Your task to perform on an android device: Show me popular videos on Youtube Image 0: 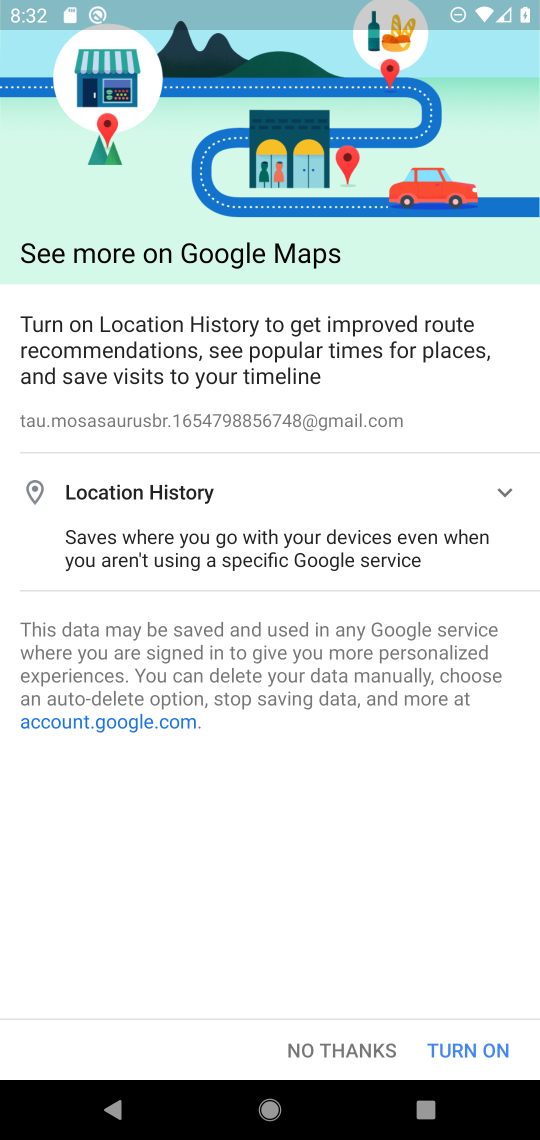
Step 0: press home button
Your task to perform on an android device: Show me popular videos on Youtube Image 1: 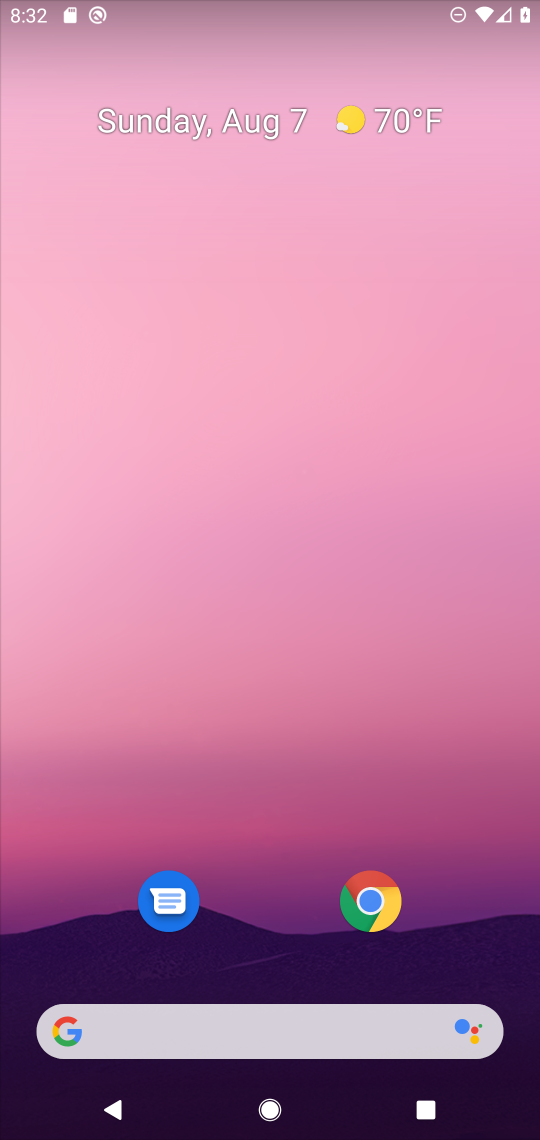
Step 1: drag from (313, 886) to (188, 104)
Your task to perform on an android device: Show me popular videos on Youtube Image 2: 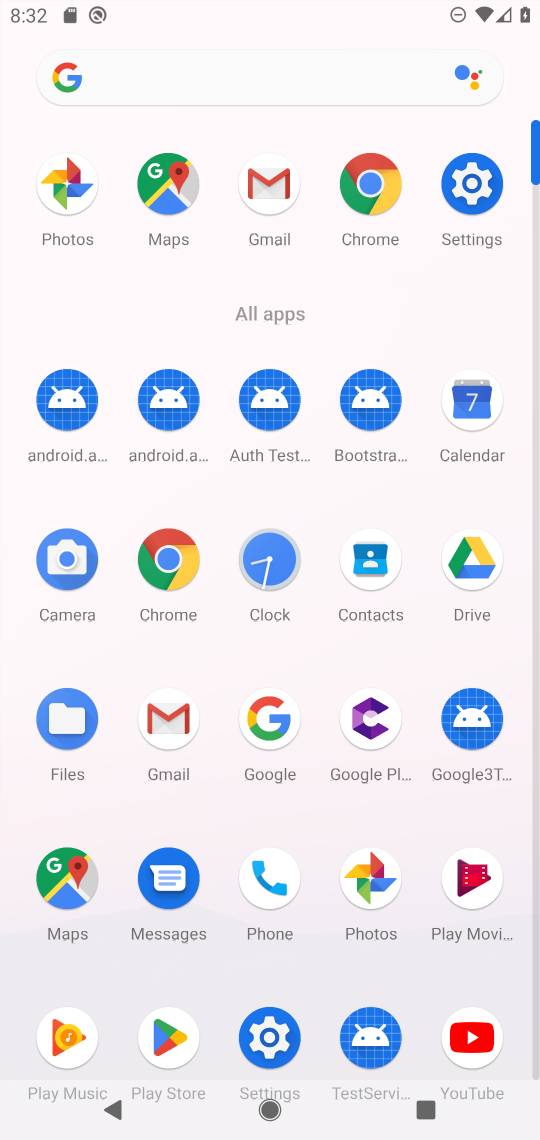
Step 2: click (463, 1034)
Your task to perform on an android device: Show me popular videos on Youtube Image 3: 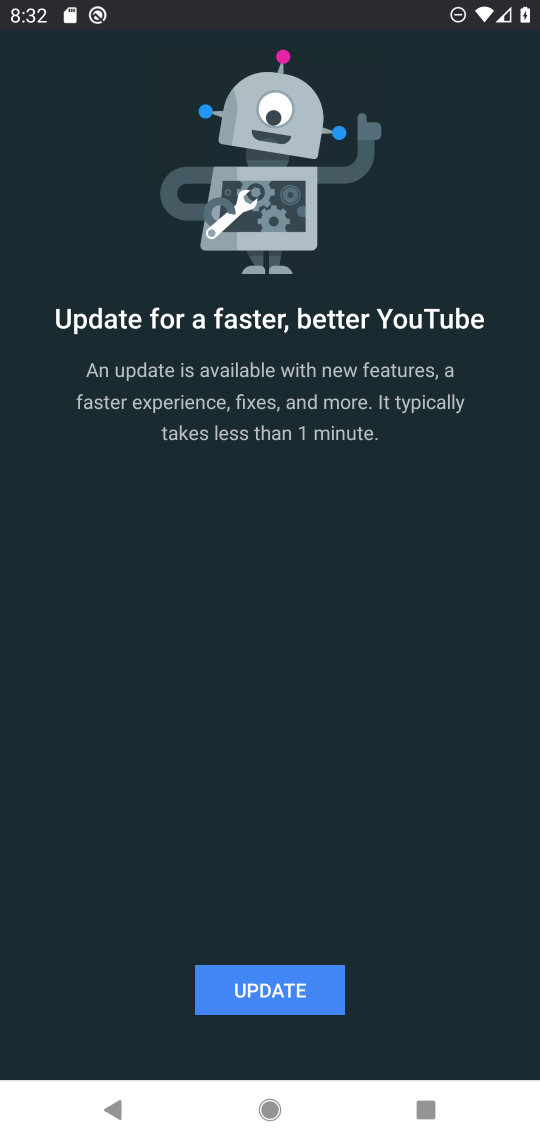
Step 3: click (222, 1004)
Your task to perform on an android device: Show me popular videos on Youtube Image 4: 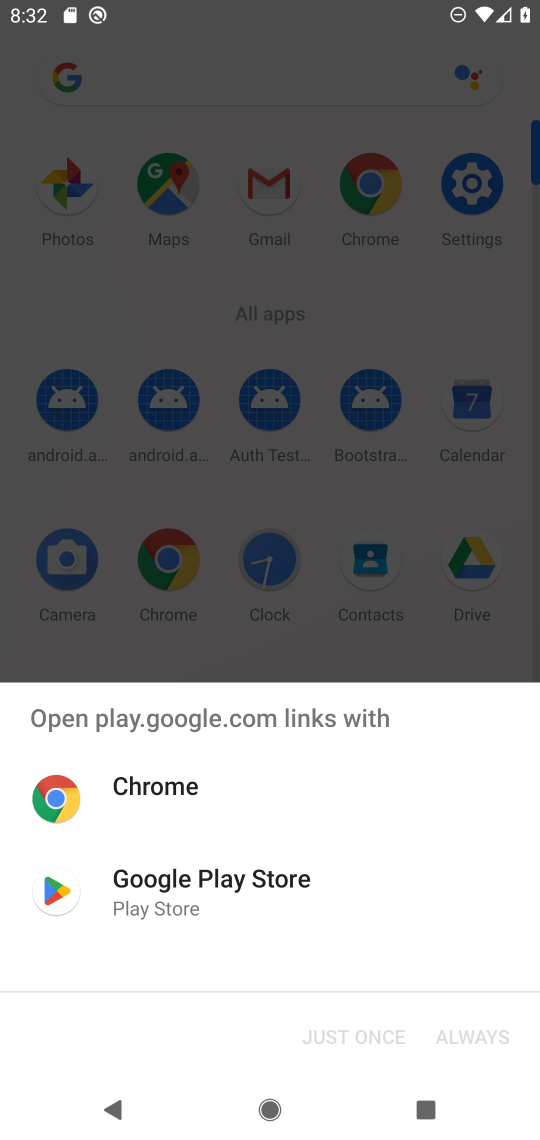
Step 4: click (206, 898)
Your task to perform on an android device: Show me popular videos on Youtube Image 5: 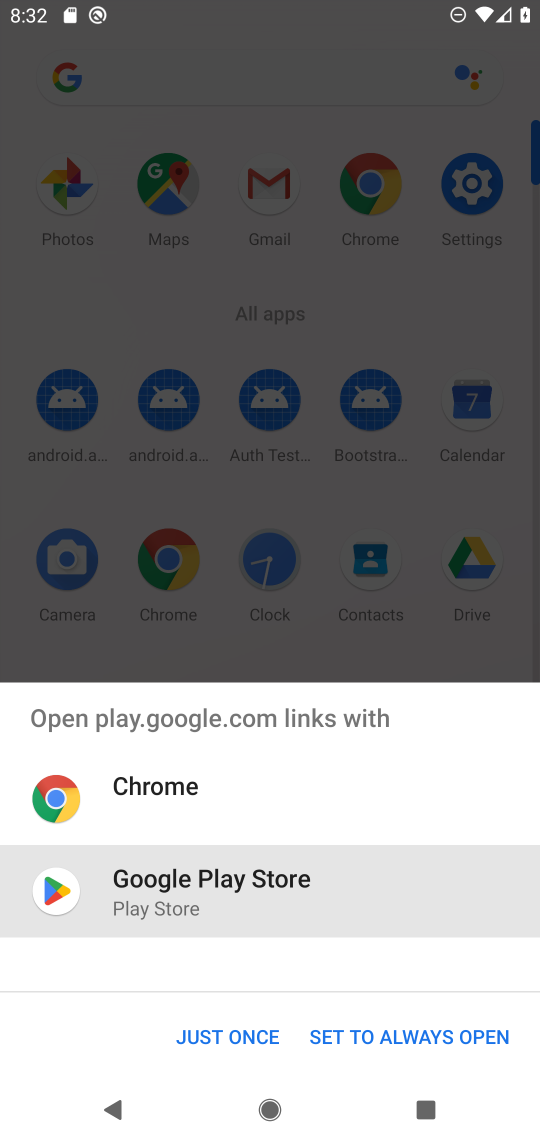
Step 5: click (455, 1031)
Your task to perform on an android device: Show me popular videos on Youtube Image 6: 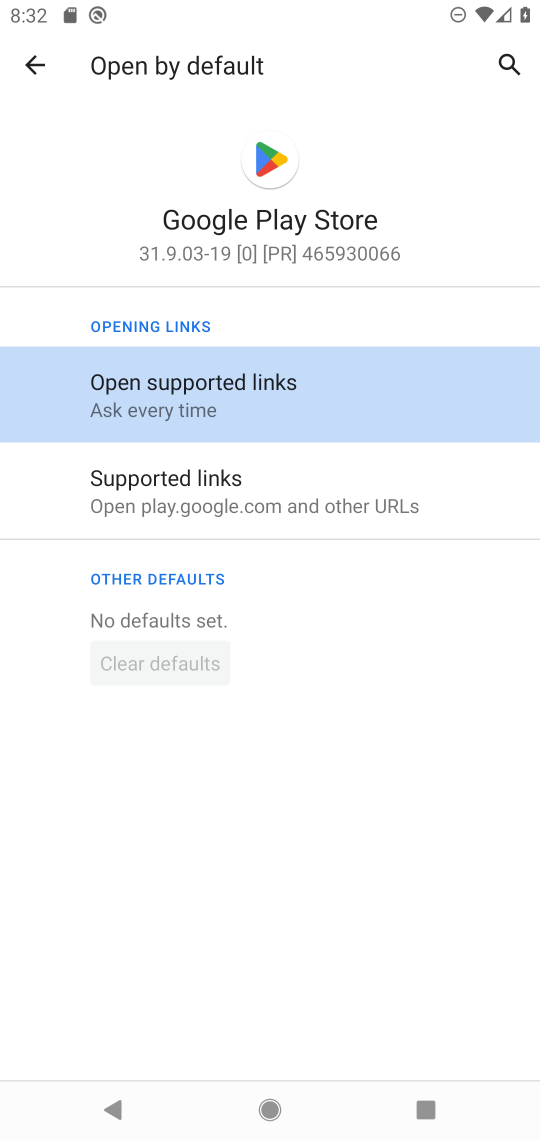
Step 6: click (33, 63)
Your task to perform on an android device: Show me popular videos on Youtube Image 7: 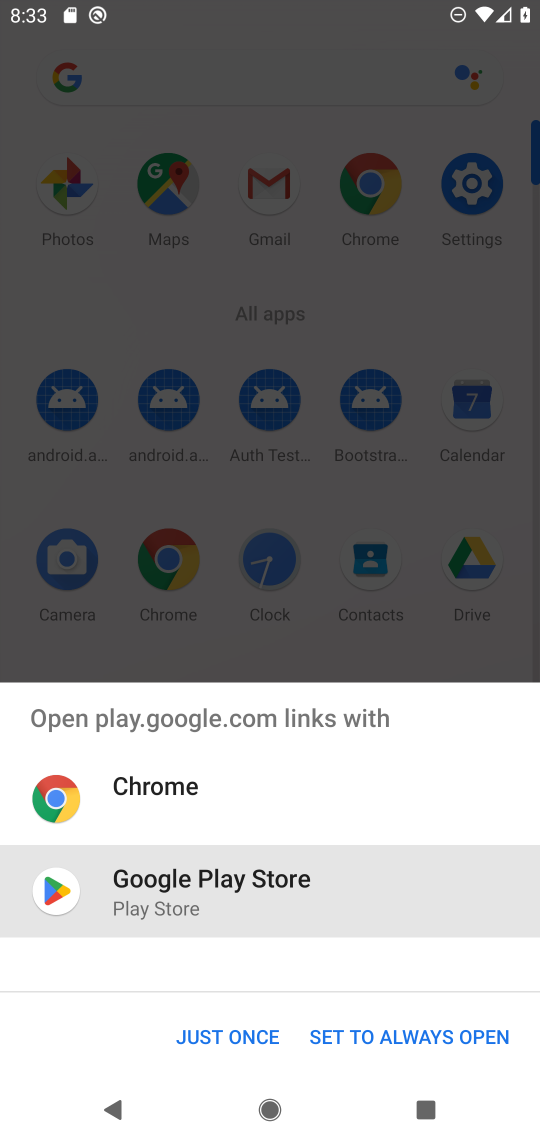
Step 7: task complete